Your task to perform on an android device: see tabs open on other devices in the chrome app Image 0: 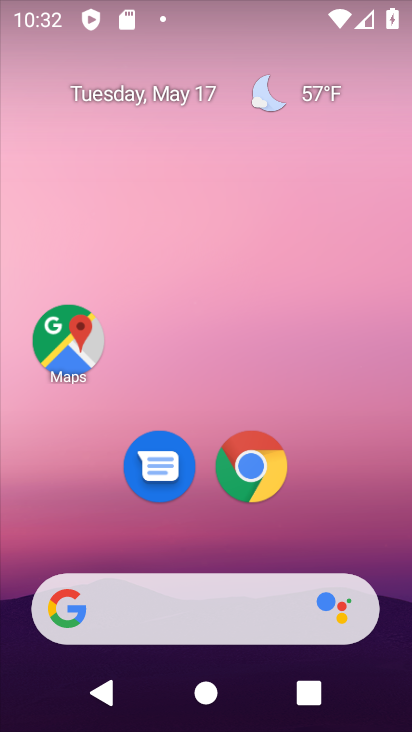
Step 0: click (247, 486)
Your task to perform on an android device: see tabs open on other devices in the chrome app Image 1: 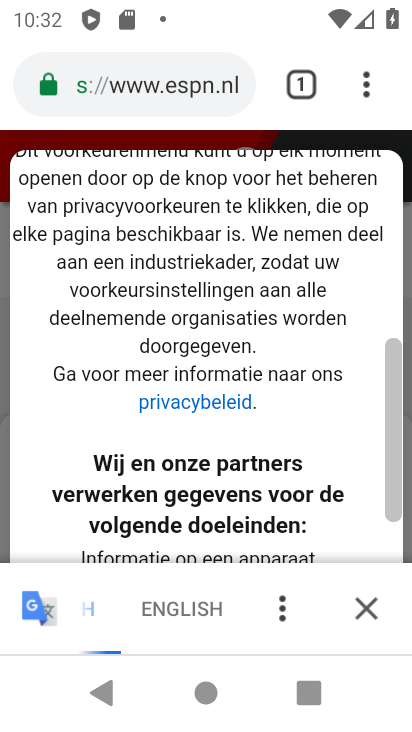
Step 1: click (360, 89)
Your task to perform on an android device: see tabs open on other devices in the chrome app Image 2: 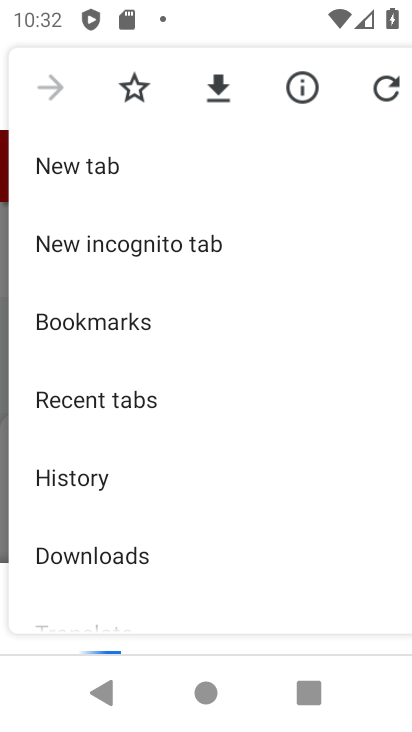
Step 2: click (82, 480)
Your task to perform on an android device: see tabs open on other devices in the chrome app Image 3: 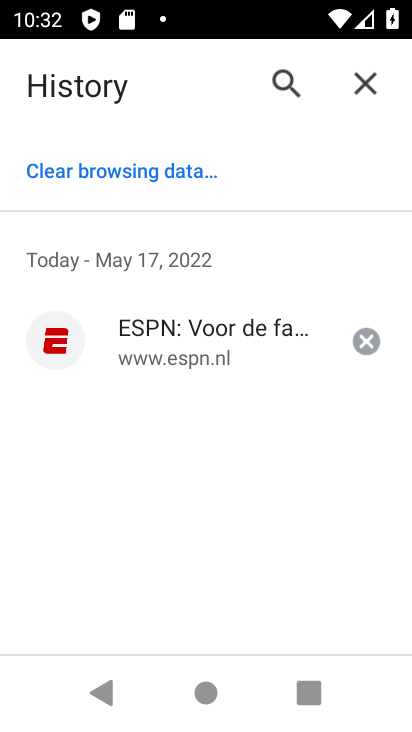
Step 3: click (361, 348)
Your task to perform on an android device: see tabs open on other devices in the chrome app Image 4: 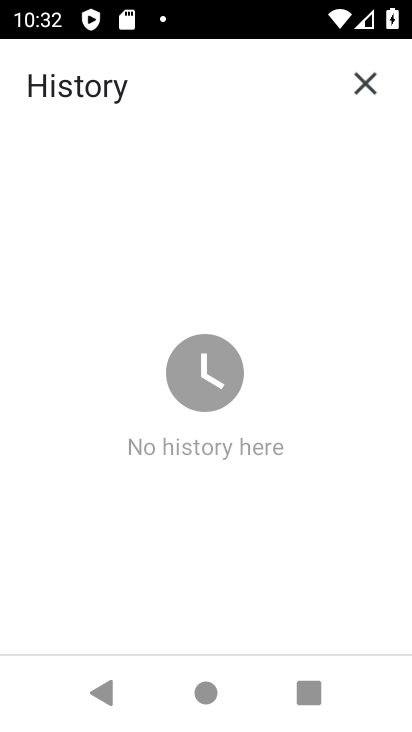
Step 4: task complete